Your task to perform on an android device: Go to settings Image 0: 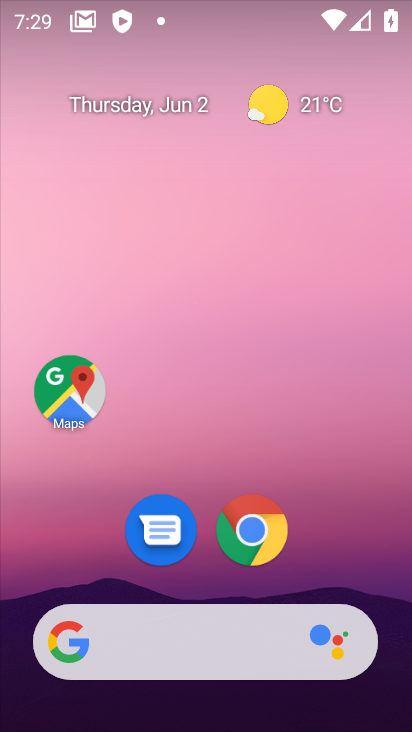
Step 0: drag from (382, 549) to (377, 90)
Your task to perform on an android device: Go to settings Image 1: 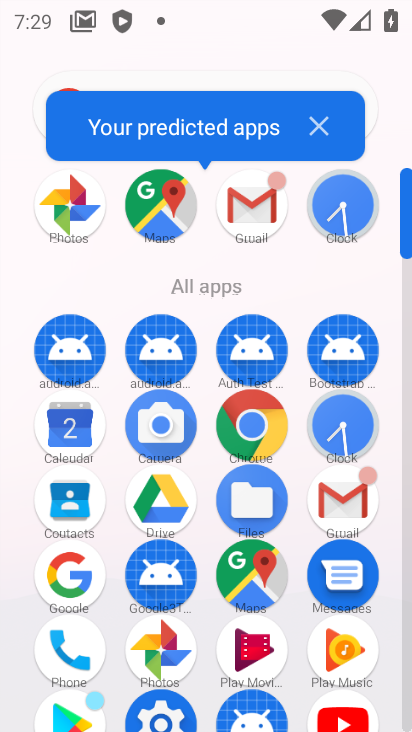
Step 1: drag from (388, 557) to (387, 360)
Your task to perform on an android device: Go to settings Image 2: 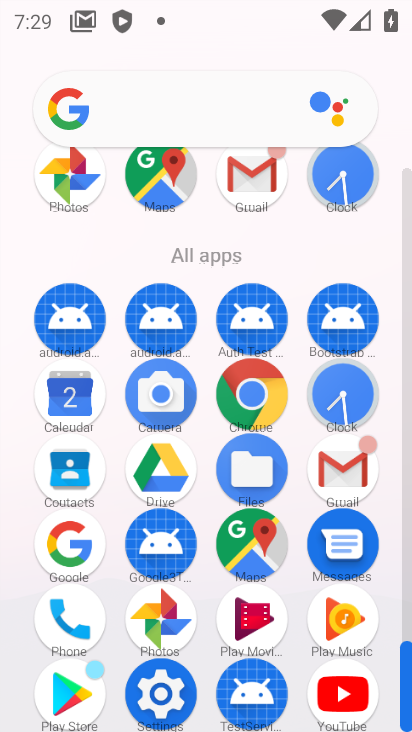
Step 2: click (170, 711)
Your task to perform on an android device: Go to settings Image 3: 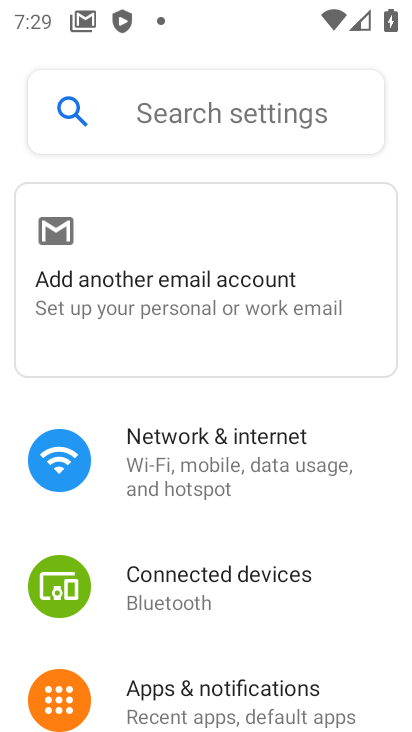
Step 3: task complete